Your task to perform on an android device: Go to network settings Image 0: 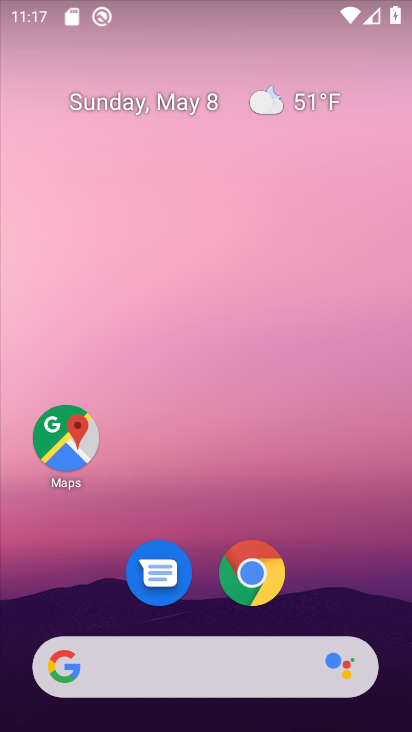
Step 0: drag from (203, 641) to (218, 241)
Your task to perform on an android device: Go to network settings Image 1: 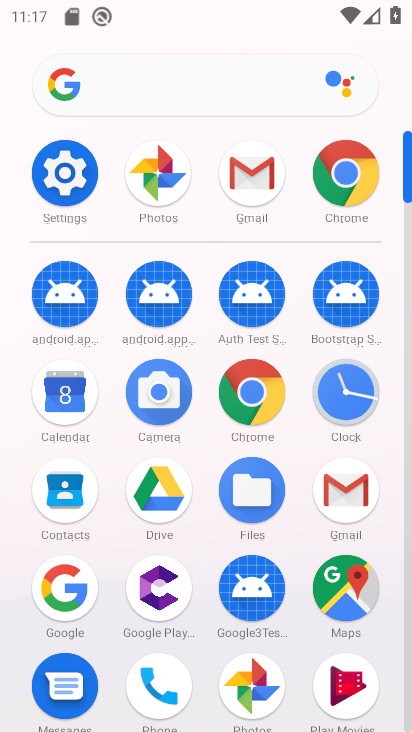
Step 1: click (57, 164)
Your task to perform on an android device: Go to network settings Image 2: 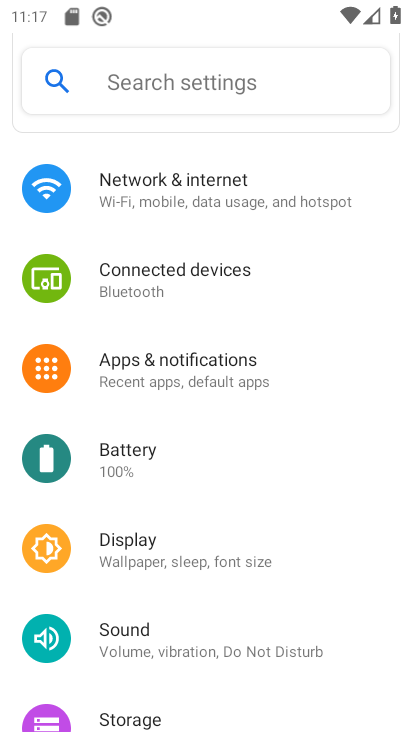
Step 2: click (140, 204)
Your task to perform on an android device: Go to network settings Image 3: 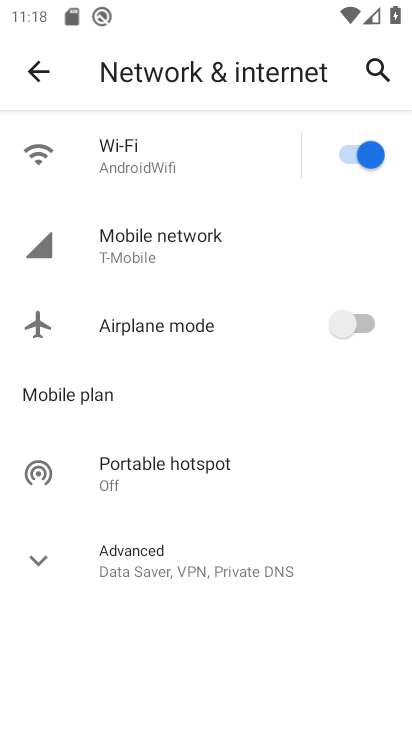
Step 3: click (126, 236)
Your task to perform on an android device: Go to network settings Image 4: 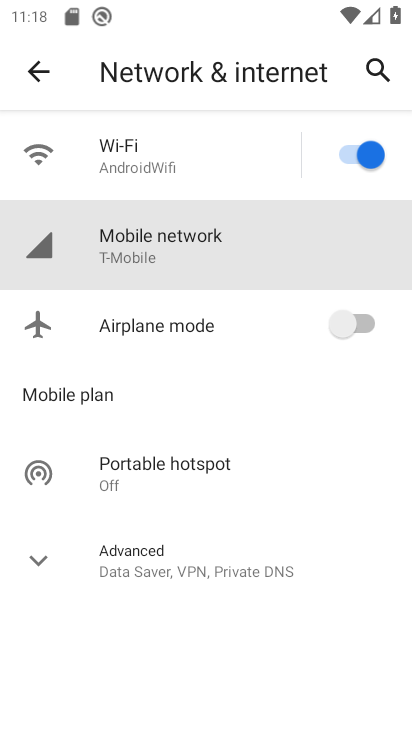
Step 4: click (128, 244)
Your task to perform on an android device: Go to network settings Image 5: 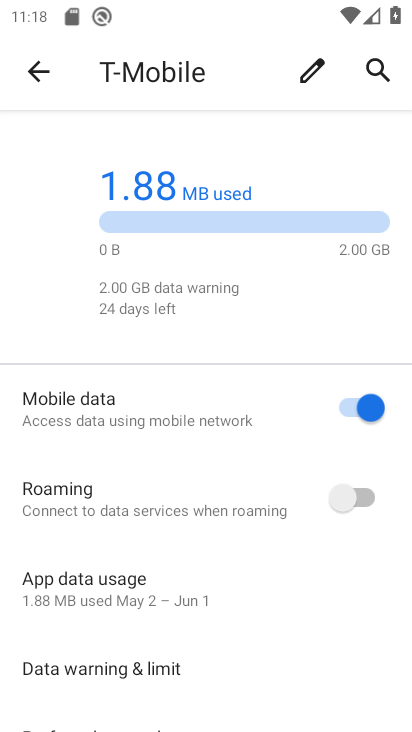
Step 5: click (147, 254)
Your task to perform on an android device: Go to network settings Image 6: 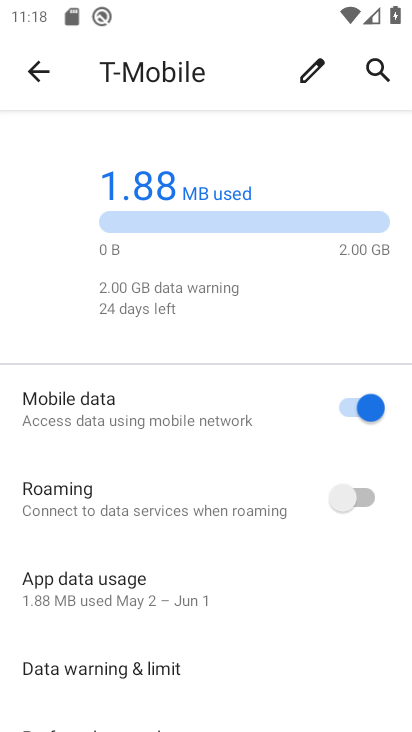
Step 6: drag from (156, 685) to (146, 385)
Your task to perform on an android device: Go to network settings Image 7: 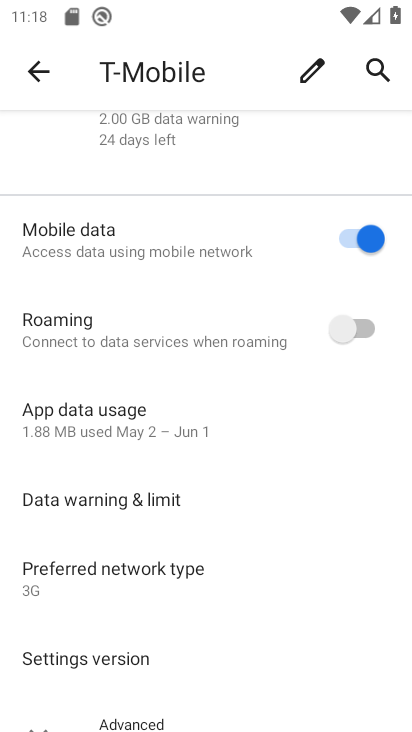
Step 7: drag from (141, 610) to (87, 319)
Your task to perform on an android device: Go to network settings Image 8: 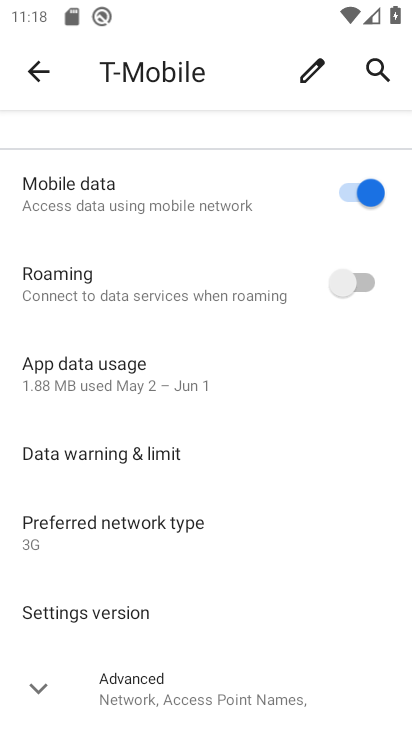
Step 8: click (160, 697)
Your task to perform on an android device: Go to network settings Image 9: 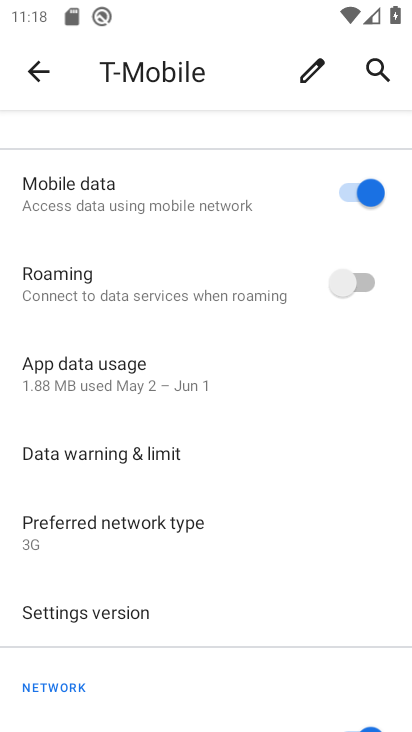
Step 9: task complete